Your task to perform on an android device: add a label to a message in the gmail app Image 0: 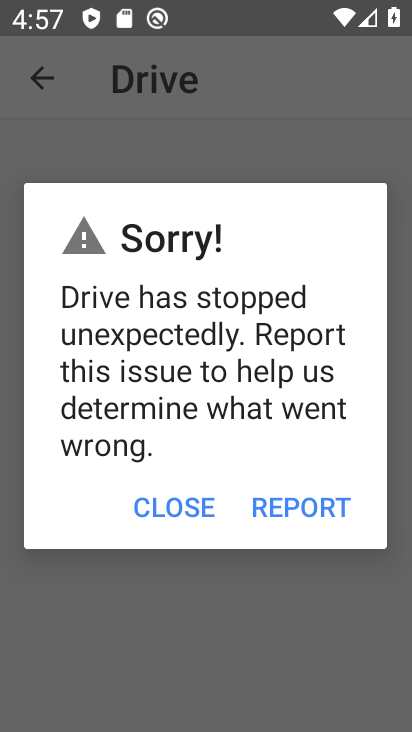
Step 0: press back button
Your task to perform on an android device: add a label to a message in the gmail app Image 1: 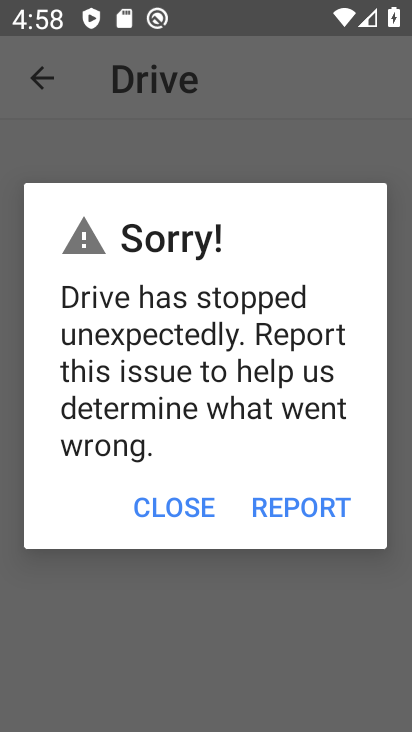
Step 1: press back button
Your task to perform on an android device: add a label to a message in the gmail app Image 2: 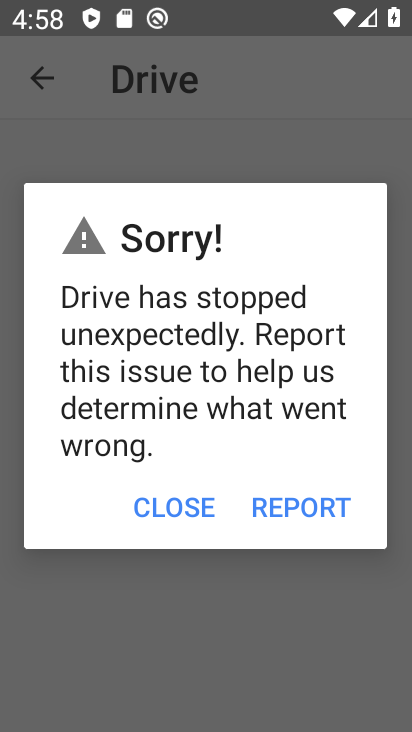
Step 2: press home button
Your task to perform on an android device: add a label to a message in the gmail app Image 3: 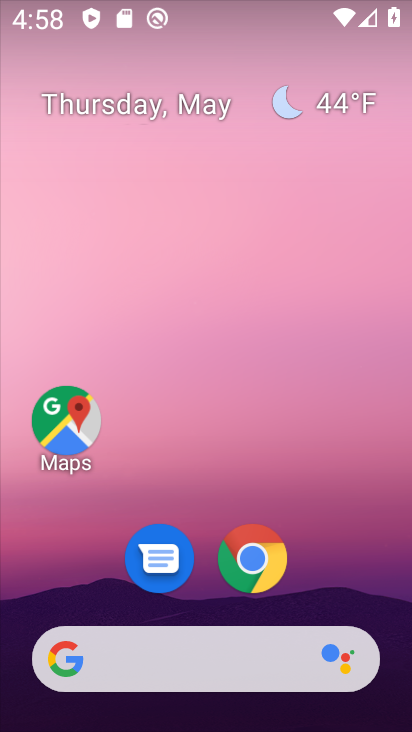
Step 3: drag from (325, 548) to (286, 24)
Your task to perform on an android device: add a label to a message in the gmail app Image 4: 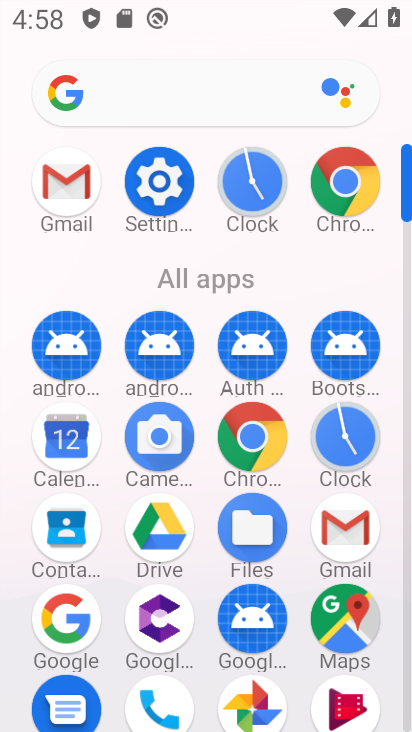
Step 4: drag from (11, 586) to (8, 255)
Your task to perform on an android device: add a label to a message in the gmail app Image 5: 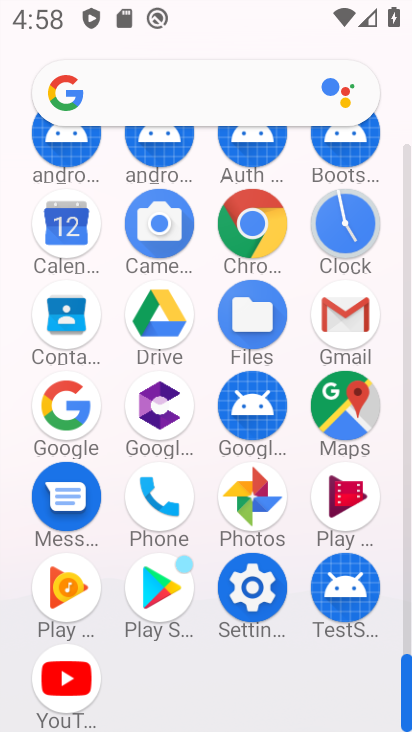
Step 5: click (345, 312)
Your task to perform on an android device: add a label to a message in the gmail app Image 6: 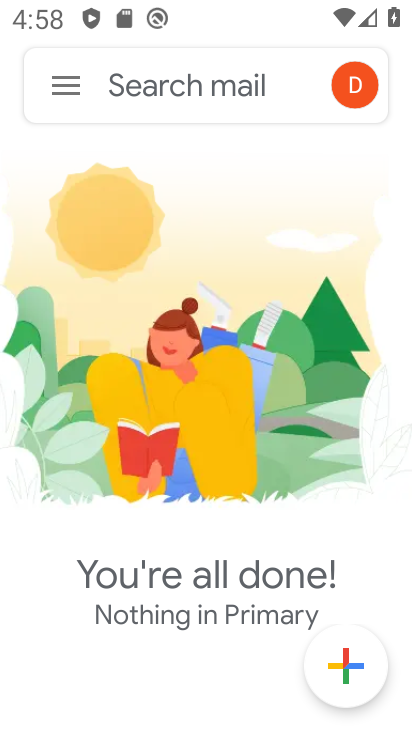
Step 6: click (65, 93)
Your task to perform on an android device: add a label to a message in the gmail app Image 7: 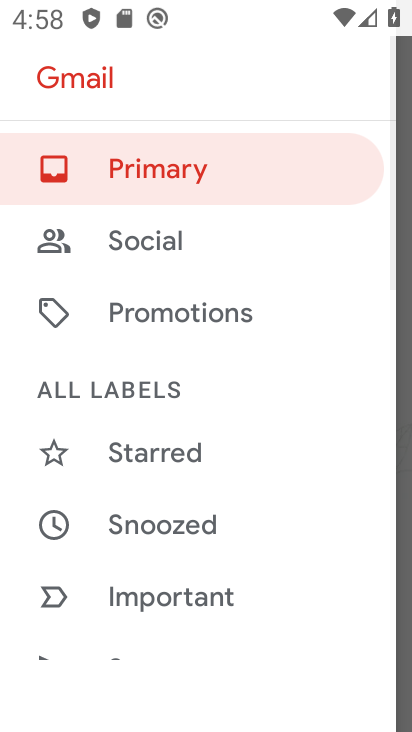
Step 7: drag from (222, 554) to (229, 207)
Your task to perform on an android device: add a label to a message in the gmail app Image 8: 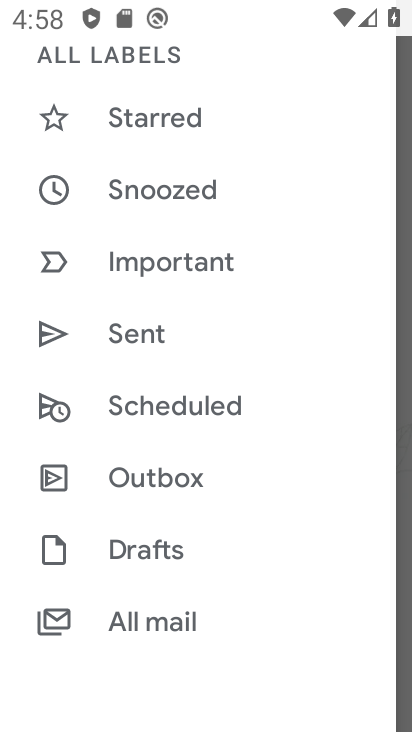
Step 8: click (162, 614)
Your task to perform on an android device: add a label to a message in the gmail app Image 9: 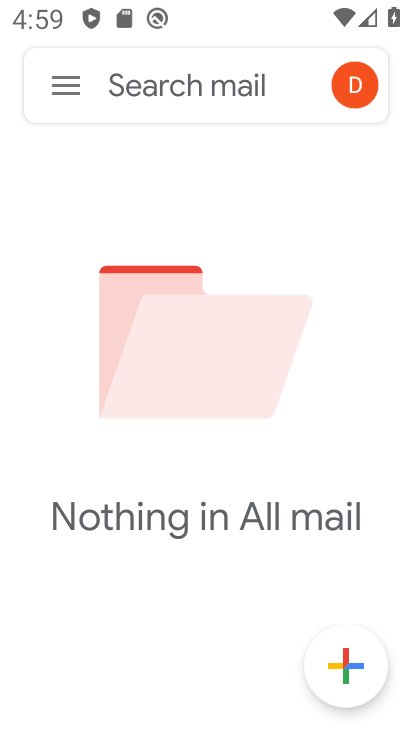
Step 9: task complete